Your task to perform on an android device: Open privacy settings Image 0: 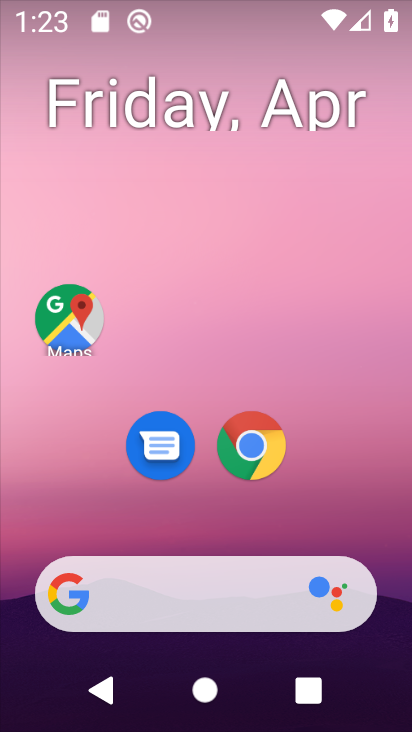
Step 0: drag from (342, 504) to (371, 131)
Your task to perform on an android device: Open privacy settings Image 1: 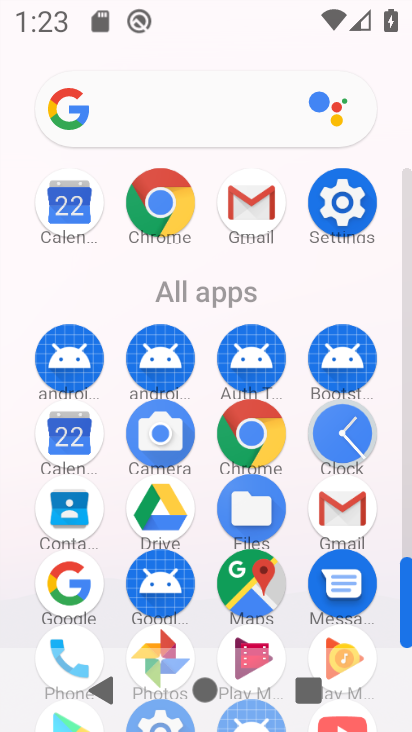
Step 1: click (348, 212)
Your task to perform on an android device: Open privacy settings Image 2: 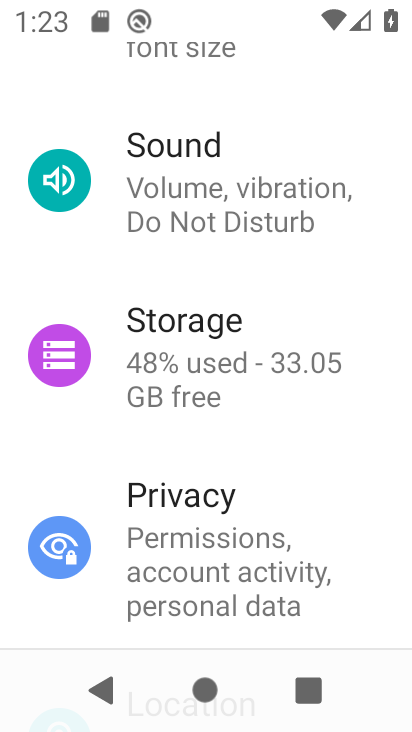
Step 2: drag from (371, 270) to (369, 393)
Your task to perform on an android device: Open privacy settings Image 3: 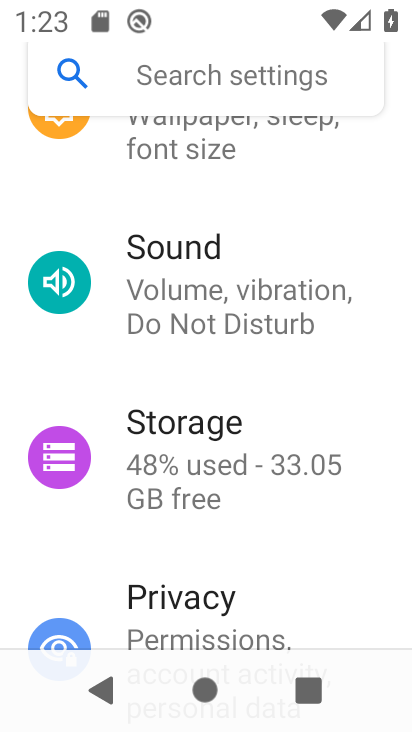
Step 3: drag from (374, 251) to (370, 392)
Your task to perform on an android device: Open privacy settings Image 4: 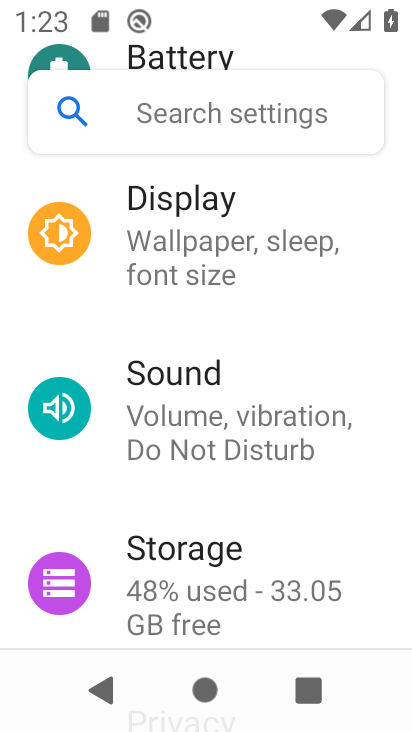
Step 4: drag from (370, 251) to (367, 393)
Your task to perform on an android device: Open privacy settings Image 5: 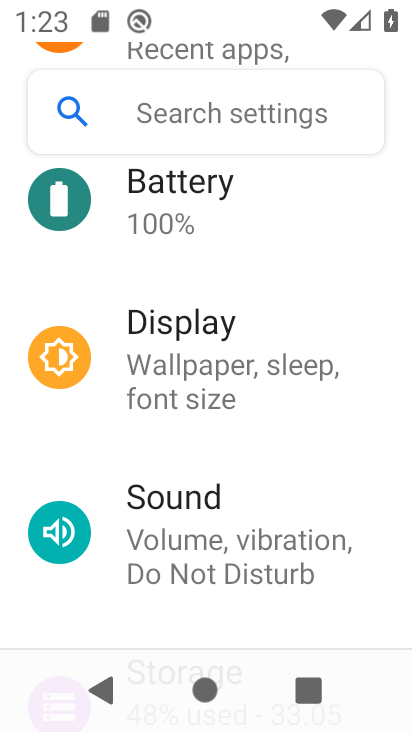
Step 5: drag from (369, 272) to (354, 440)
Your task to perform on an android device: Open privacy settings Image 6: 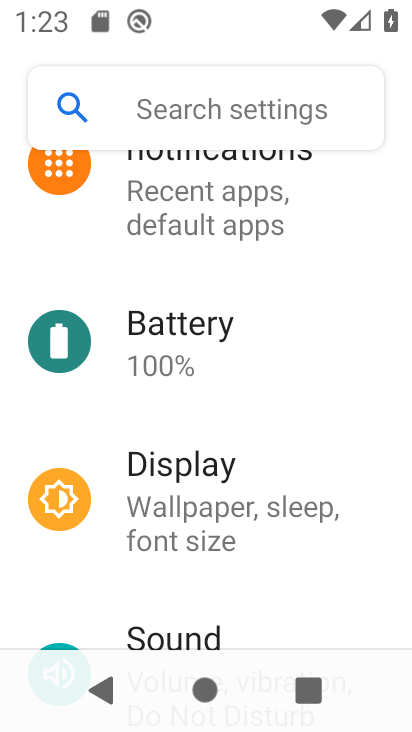
Step 6: drag from (348, 260) to (355, 471)
Your task to perform on an android device: Open privacy settings Image 7: 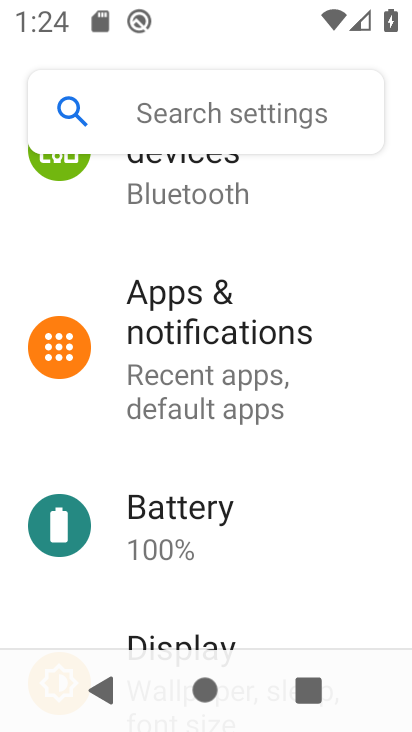
Step 7: drag from (356, 285) to (356, 445)
Your task to perform on an android device: Open privacy settings Image 8: 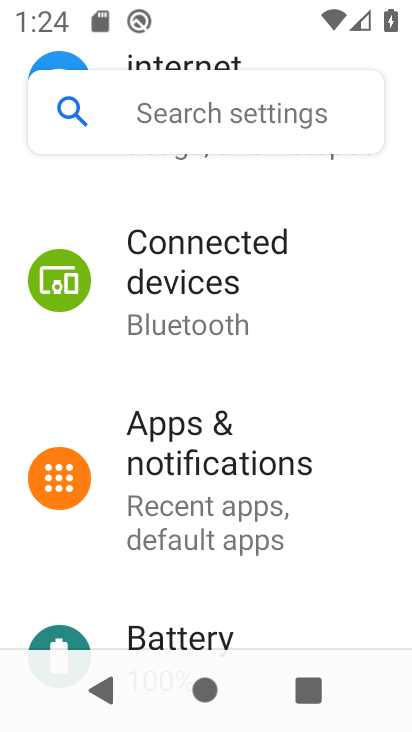
Step 8: drag from (350, 311) to (354, 463)
Your task to perform on an android device: Open privacy settings Image 9: 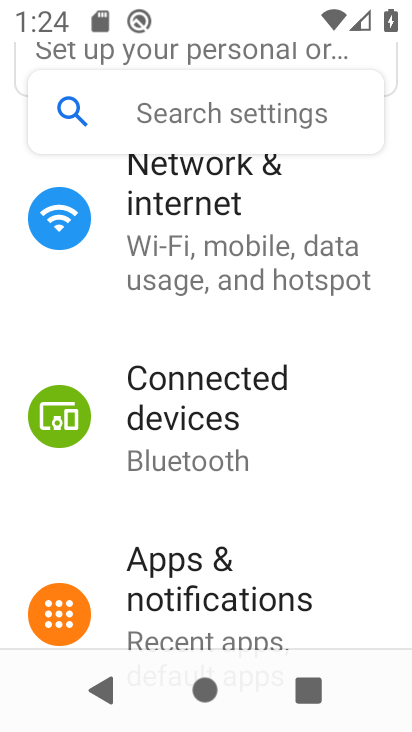
Step 9: drag from (340, 526) to (360, 389)
Your task to perform on an android device: Open privacy settings Image 10: 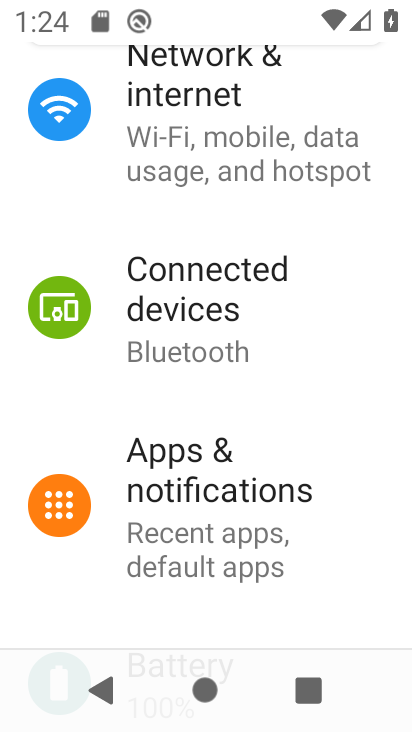
Step 10: drag from (341, 581) to (335, 427)
Your task to perform on an android device: Open privacy settings Image 11: 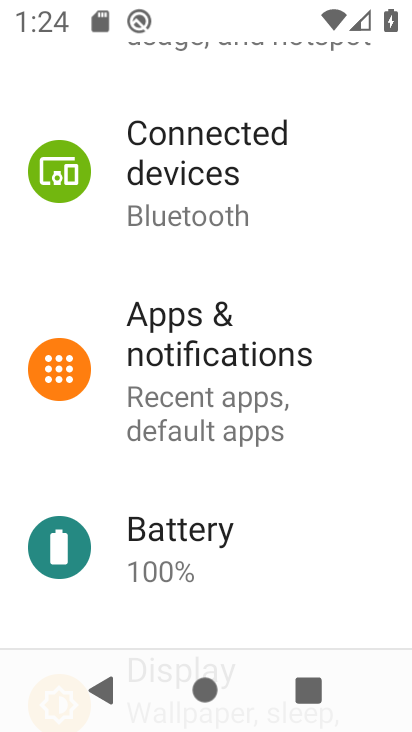
Step 11: drag from (337, 588) to (351, 397)
Your task to perform on an android device: Open privacy settings Image 12: 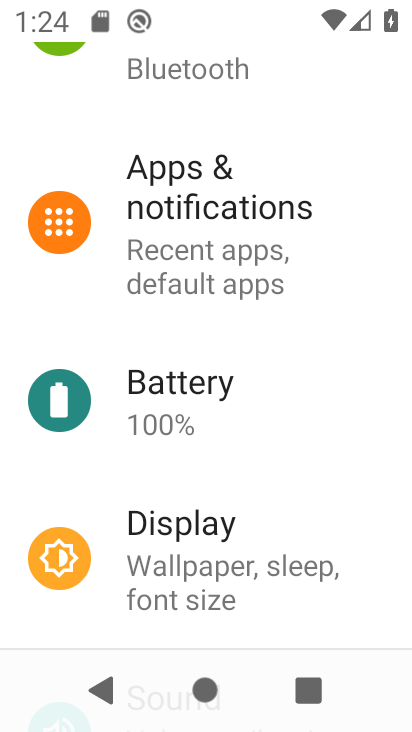
Step 12: drag from (360, 591) to (364, 407)
Your task to perform on an android device: Open privacy settings Image 13: 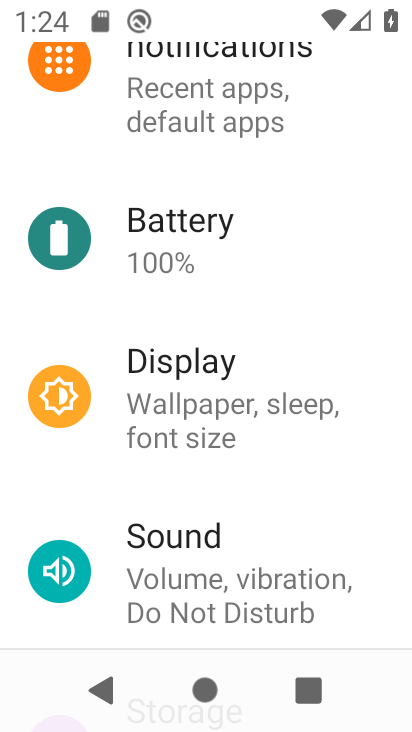
Step 13: drag from (342, 598) to (342, 436)
Your task to perform on an android device: Open privacy settings Image 14: 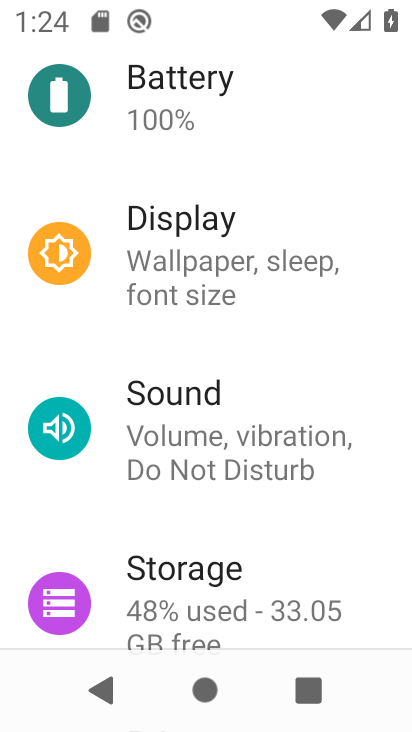
Step 14: drag from (366, 592) to (379, 401)
Your task to perform on an android device: Open privacy settings Image 15: 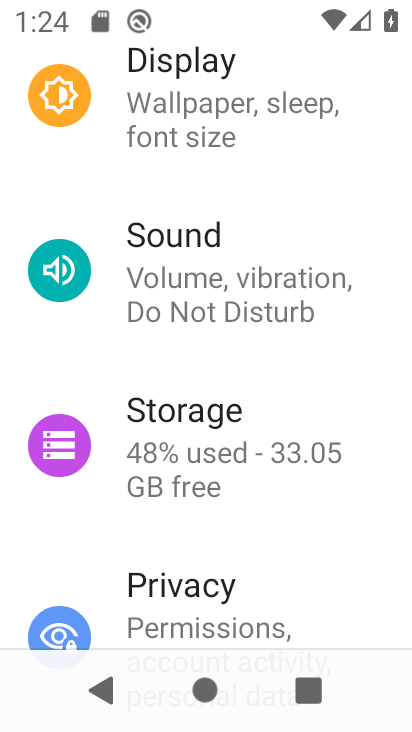
Step 15: drag from (355, 560) to (358, 379)
Your task to perform on an android device: Open privacy settings Image 16: 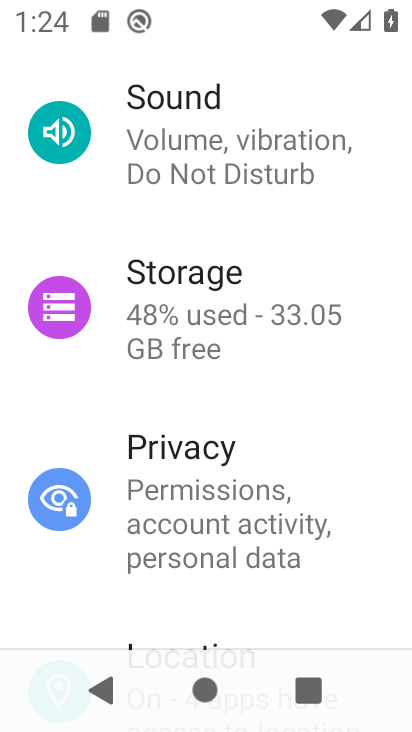
Step 16: click (227, 496)
Your task to perform on an android device: Open privacy settings Image 17: 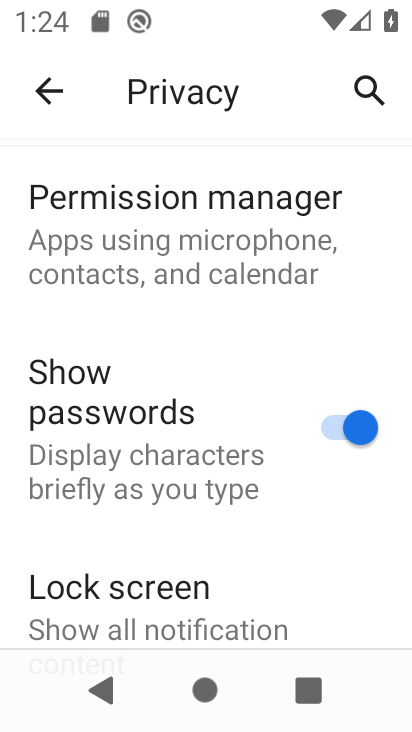
Step 17: task complete